Your task to perform on an android device: Show me popular videos on Youtube Image 0: 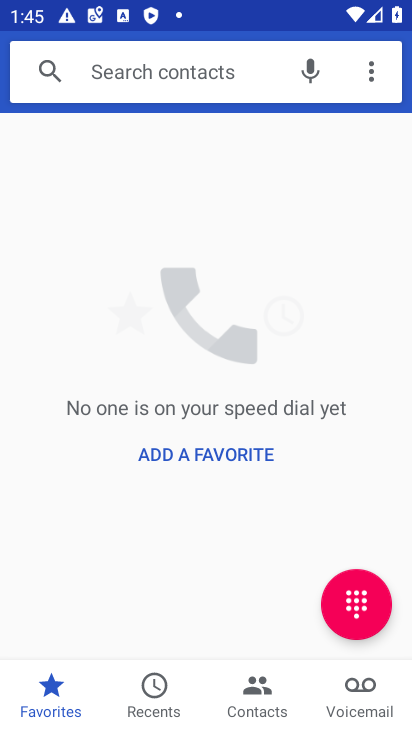
Step 0: press home button
Your task to perform on an android device: Show me popular videos on Youtube Image 1: 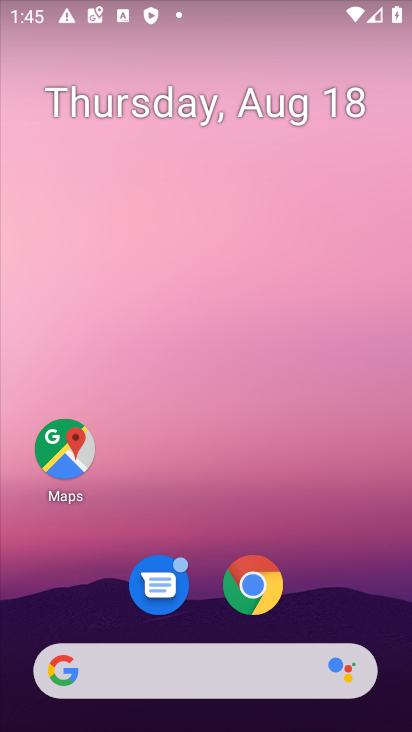
Step 1: drag from (233, 534) to (288, 3)
Your task to perform on an android device: Show me popular videos on Youtube Image 2: 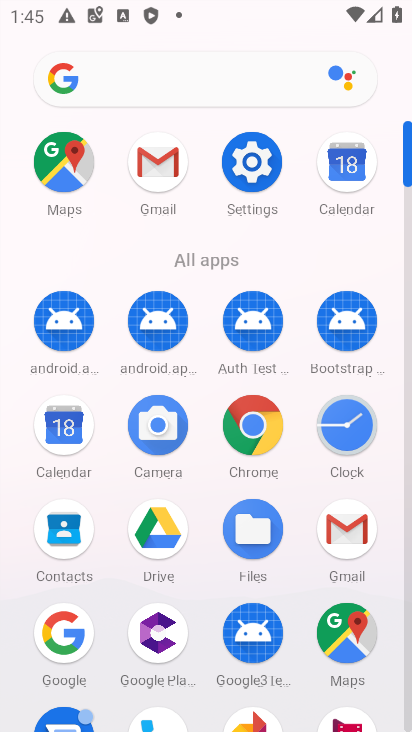
Step 2: drag from (273, 440) to (292, 2)
Your task to perform on an android device: Show me popular videos on Youtube Image 3: 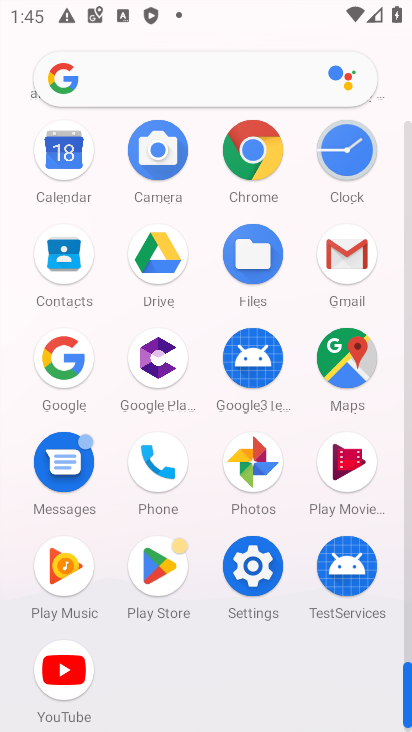
Step 3: click (76, 653)
Your task to perform on an android device: Show me popular videos on Youtube Image 4: 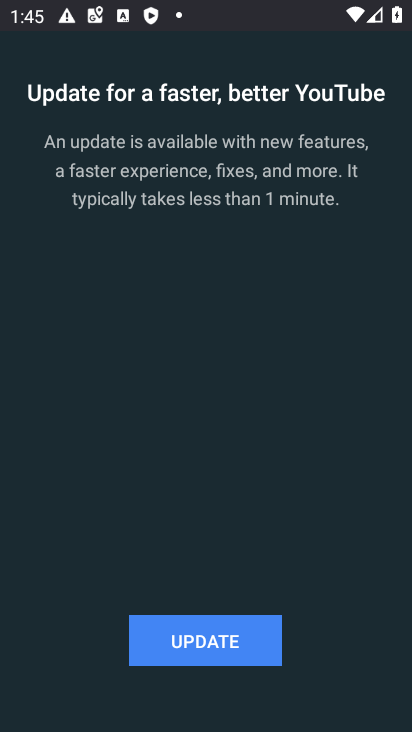
Step 4: click (213, 645)
Your task to perform on an android device: Show me popular videos on Youtube Image 5: 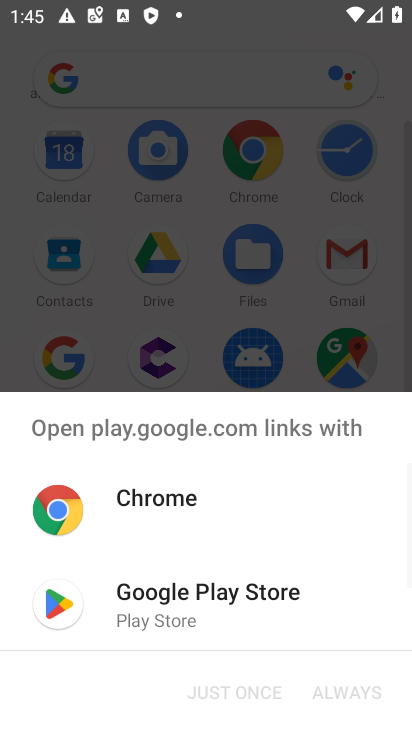
Step 5: click (186, 591)
Your task to perform on an android device: Show me popular videos on Youtube Image 6: 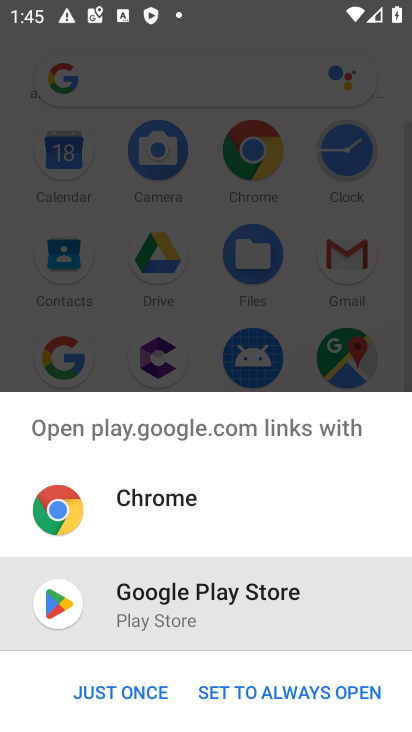
Step 6: click (135, 687)
Your task to perform on an android device: Show me popular videos on Youtube Image 7: 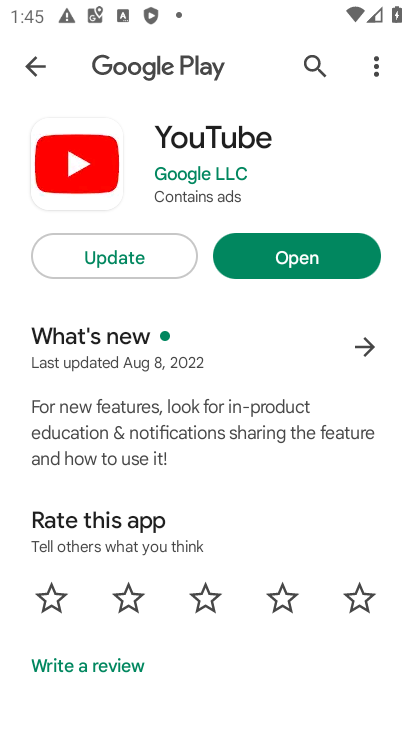
Step 7: click (159, 254)
Your task to perform on an android device: Show me popular videos on Youtube Image 8: 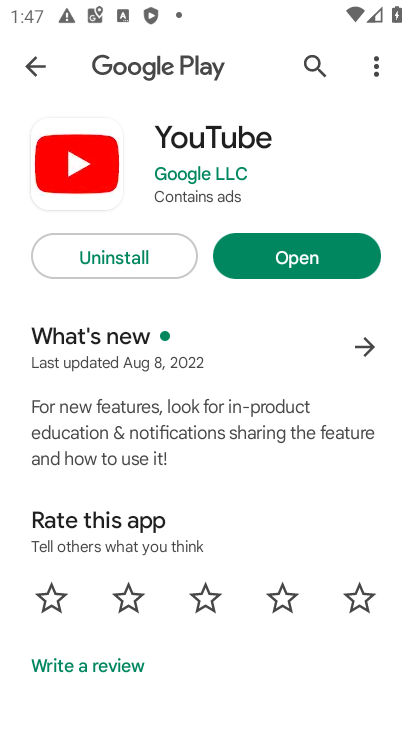
Step 8: click (352, 254)
Your task to perform on an android device: Show me popular videos on Youtube Image 9: 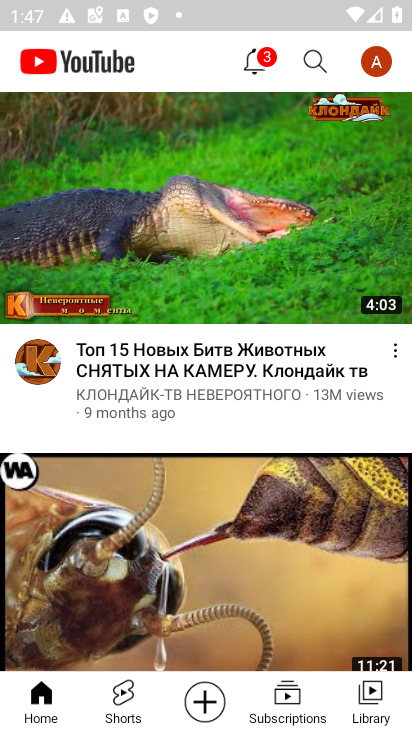
Step 9: click (310, 61)
Your task to perform on an android device: Show me popular videos on Youtube Image 10: 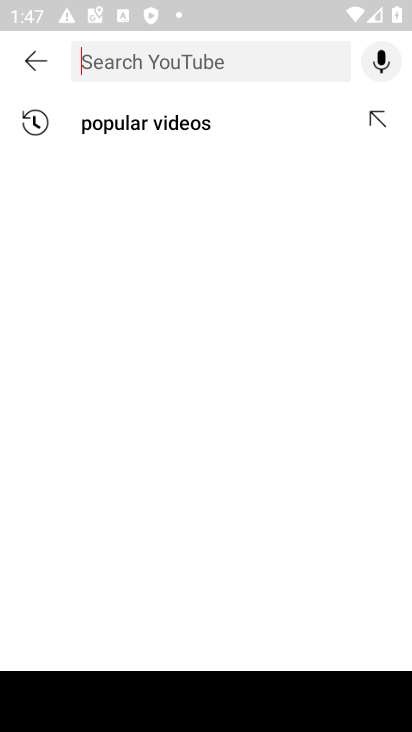
Step 10: click (205, 117)
Your task to perform on an android device: Show me popular videos on Youtube Image 11: 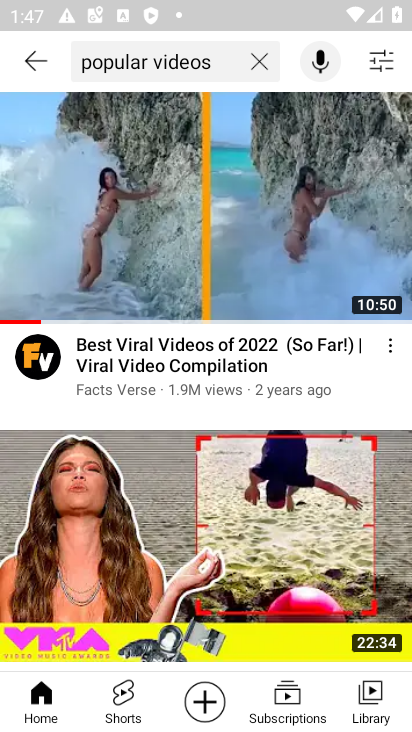
Step 11: task complete